Your task to perform on an android device: turn off notifications settings in the gmail app Image 0: 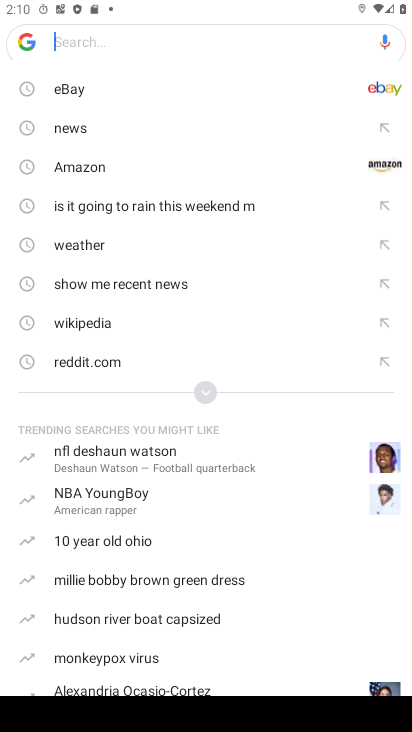
Step 0: press home button
Your task to perform on an android device: turn off notifications settings in the gmail app Image 1: 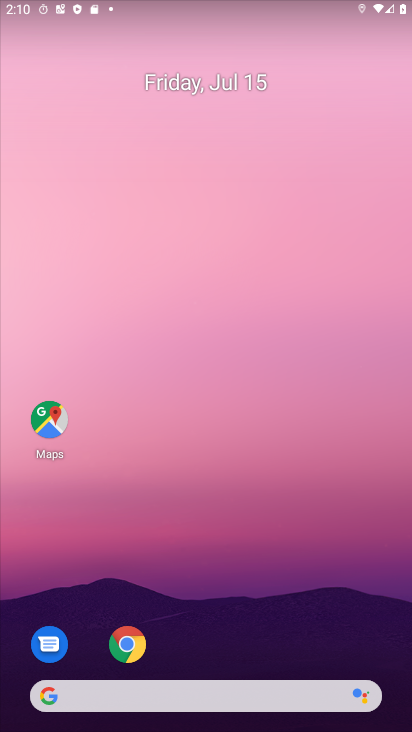
Step 1: drag from (327, 614) to (260, 15)
Your task to perform on an android device: turn off notifications settings in the gmail app Image 2: 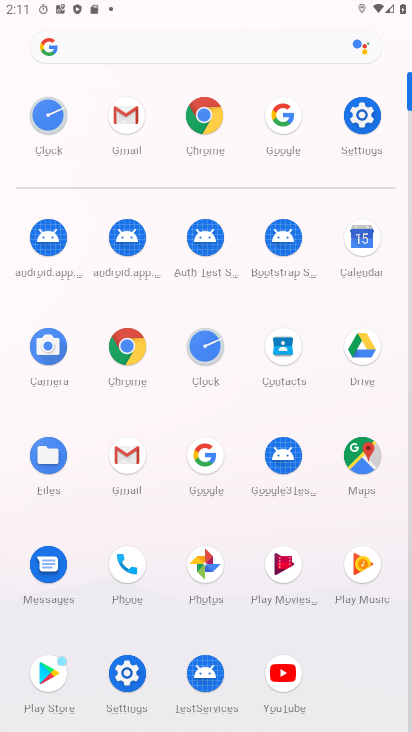
Step 2: click (132, 469)
Your task to perform on an android device: turn off notifications settings in the gmail app Image 3: 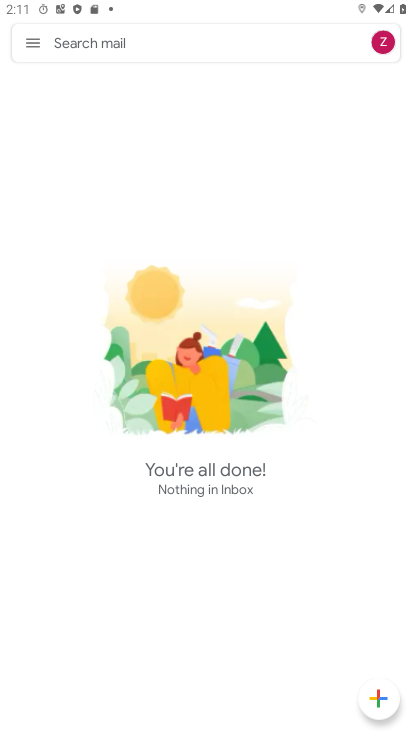
Step 3: click (32, 43)
Your task to perform on an android device: turn off notifications settings in the gmail app Image 4: 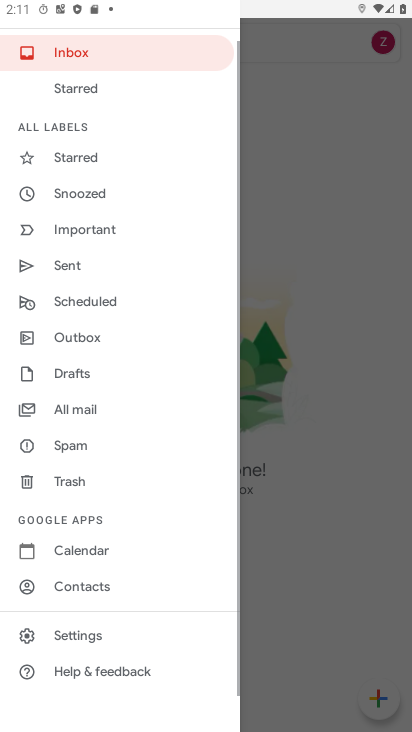
Step 4: click (76, 627)
Your task to perform on an android device: turn off notifications settings in the gmail app Image 5: 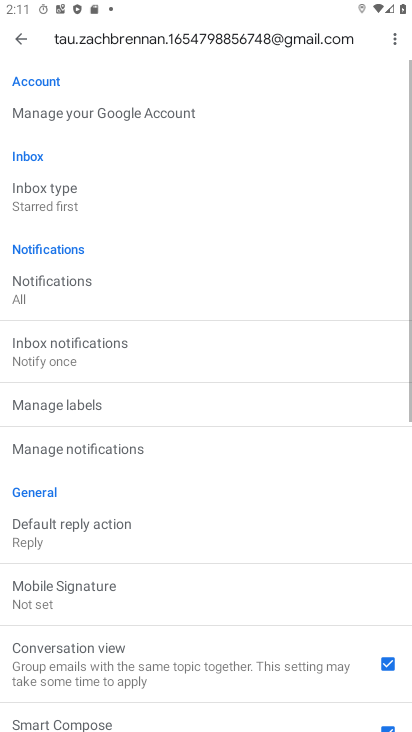
Step 5: click (90, 304)
Your task to perform on an android device: turn off notifications settings in the gmail app Image 6: 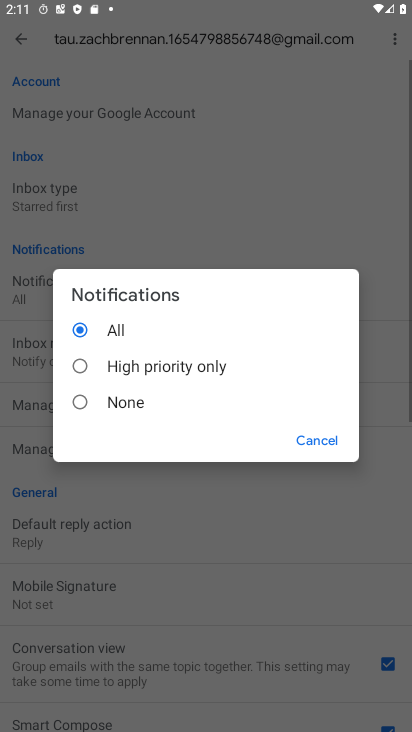
Step 6: click (93, 402)
Your task to perform on an android device: turn off notifications settings in the gmail app Image 7: 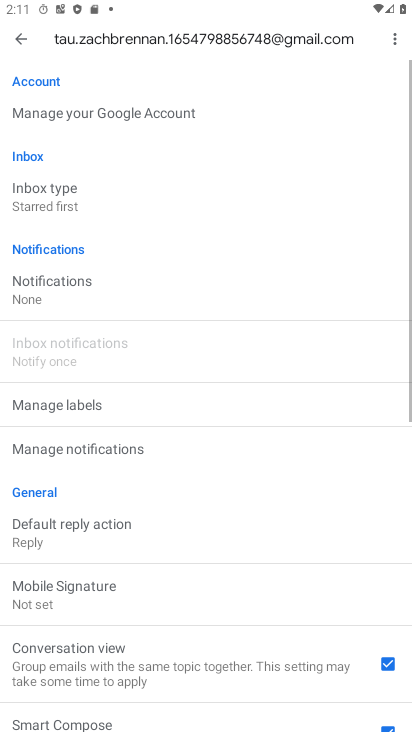
Step 7: task complete